Your task to perform on an android device: Open calendar and show me the second week of next month Image 0: 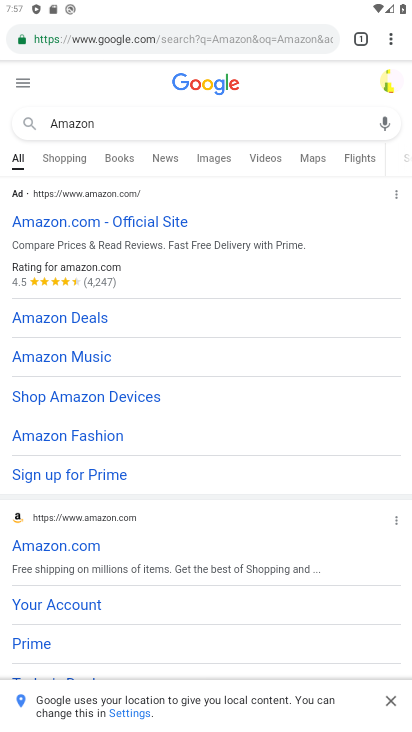
Step 0: press home button
Your task to perform on an android device: Open calendar and show me the second week of next month Image 1: 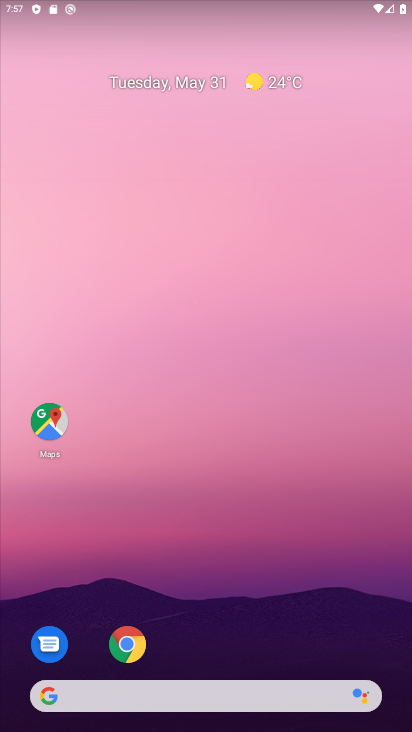
Step 1: drag from (219, 616) to (272, 272)
Your task to perform on an android device: Open calendar and show me the second week of next month Image 2: 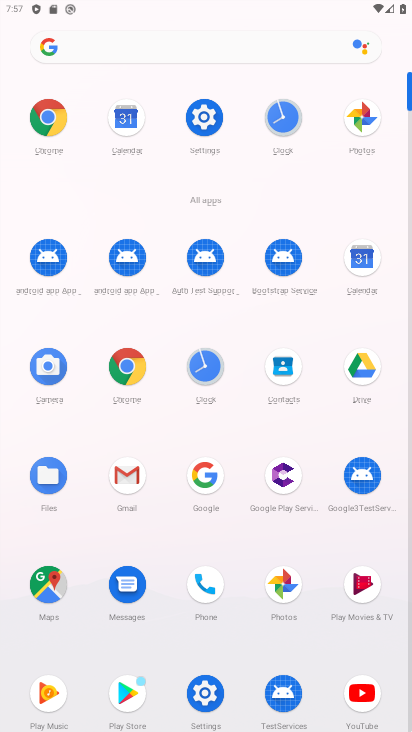
Step 2: click (357, 255)
Your task to perform on an android device: Open calendar and show me the second week of next month Image 3: 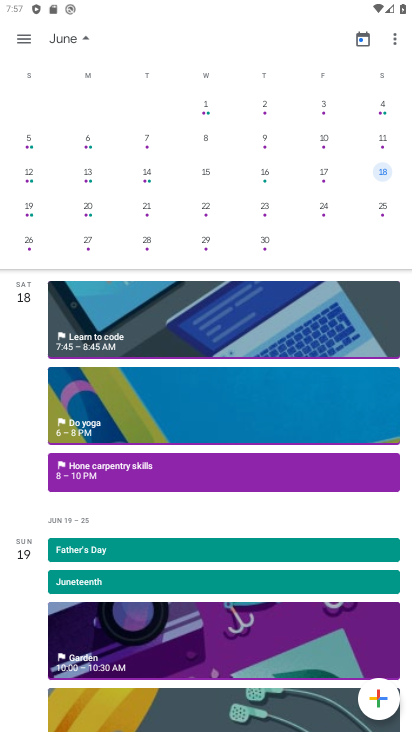
Step 3: drag from (396, 198) to (0, 154)
Your task to perform on an android device: Open calendar and show me the second week of next month Image 4: 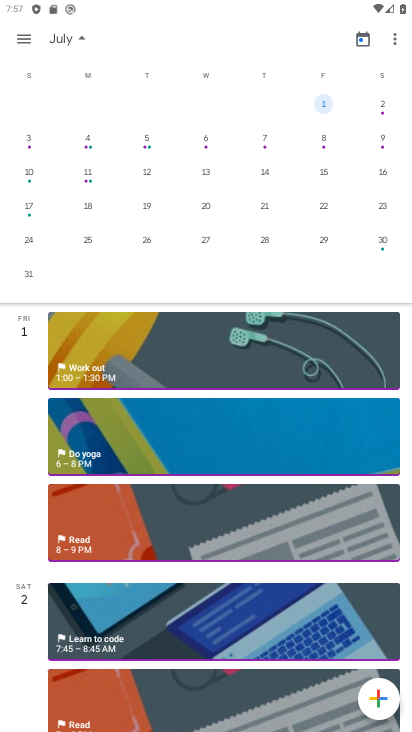
Step 4: click (174, 133)
Your task to perform on an android device: Open calendar and show me the second week of next month Image 5: 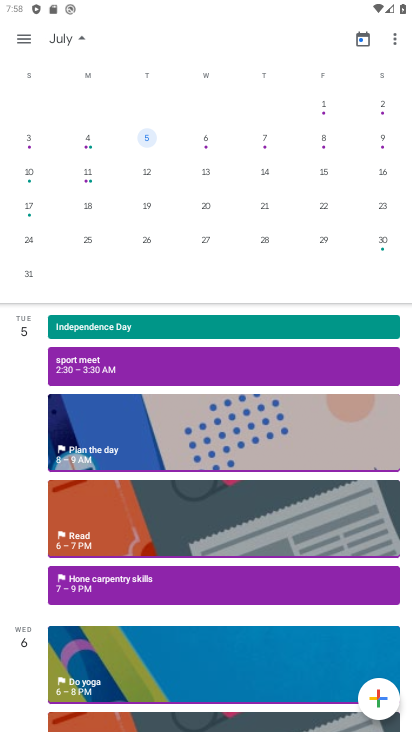
Step 5: click (208, 140)
Your task to perform on an android device: Open calendar and show me the second week of next month Image 6: 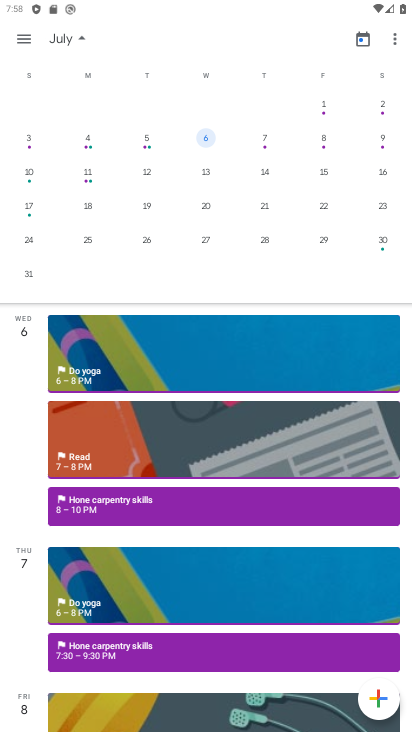
Step 6: click (261, 136)
Your task to perform on an android device: Open calendar and show me the second week of next month Image 7: 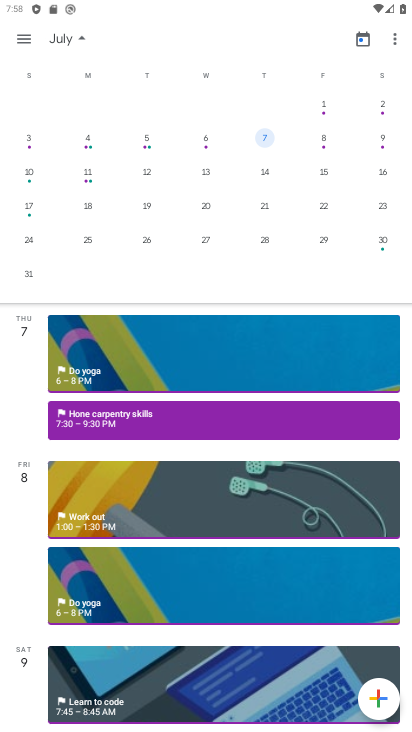
Step 7: click (322, 144)
Your task to perform on an android device: Open calendar and show me the second week of next month Image 8: 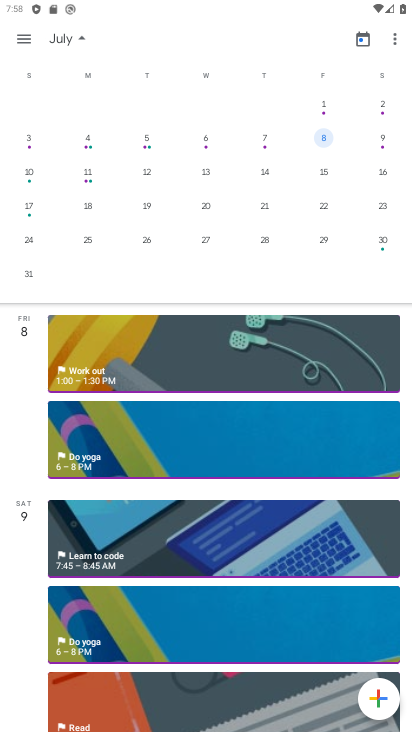
Step 8: click (364, 142)
Your task to perform on an android device: Open calendar and show me the second week of next month Image 9: 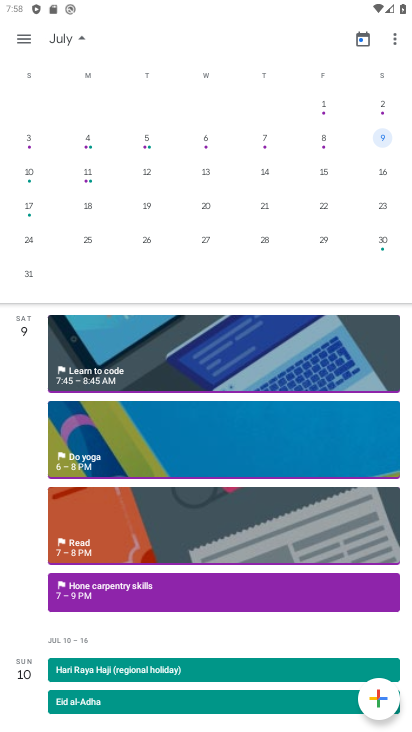
Step 9: task complete